Your task to perform on an android device: open a bookmark in the chrome app Image 0: 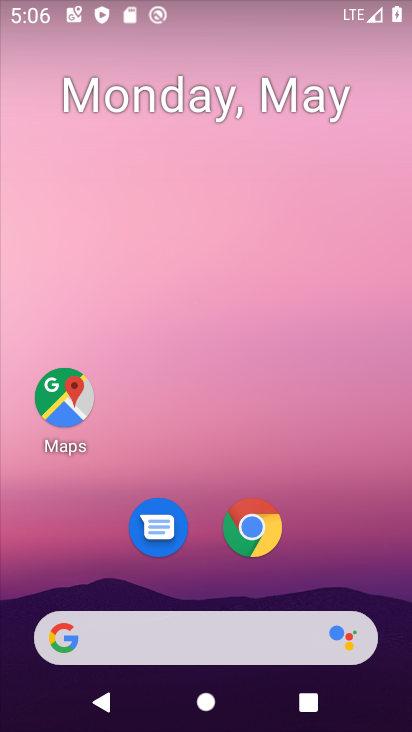
Step 0: click (242, 538)
Your task to perform on an android device: open a bookmark in the chrome app Image 1: 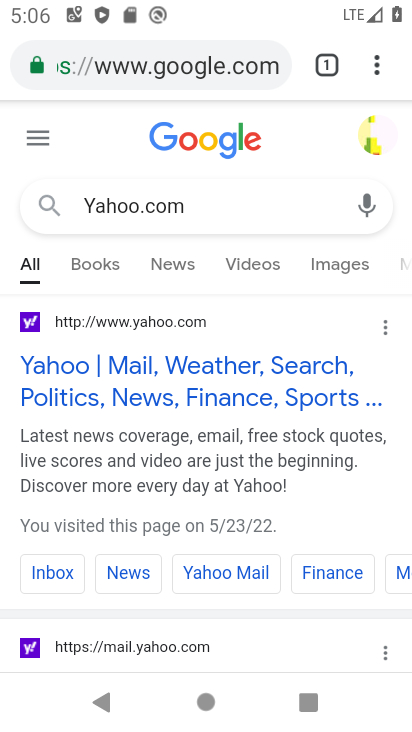
Step 1: click (377, 68)
Your task to perform on an android device: open a bookmark in the chrome app Image 2: 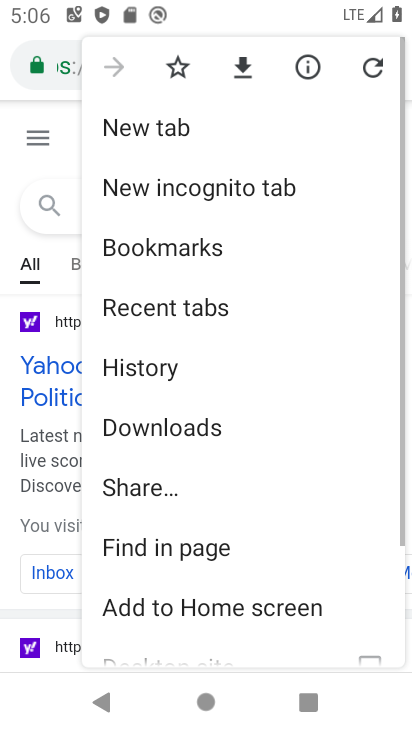
Step 2: click (186, 242)
Your task to perform on an android device: open a bookmark in the chrome app Image 3: 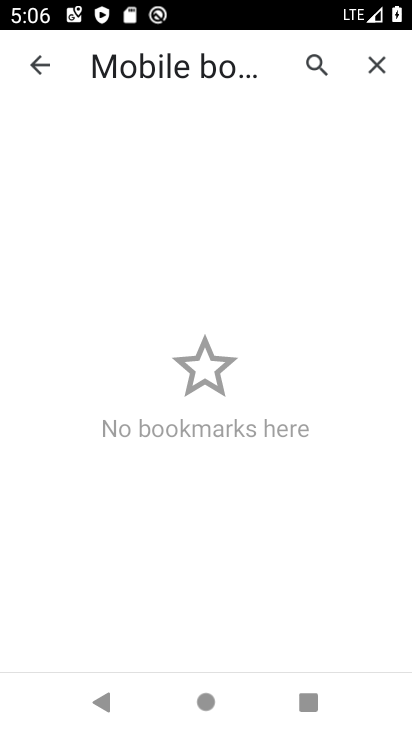
Step 3: task complete